Your task to perform on an android device: Go to Maps Image 0: 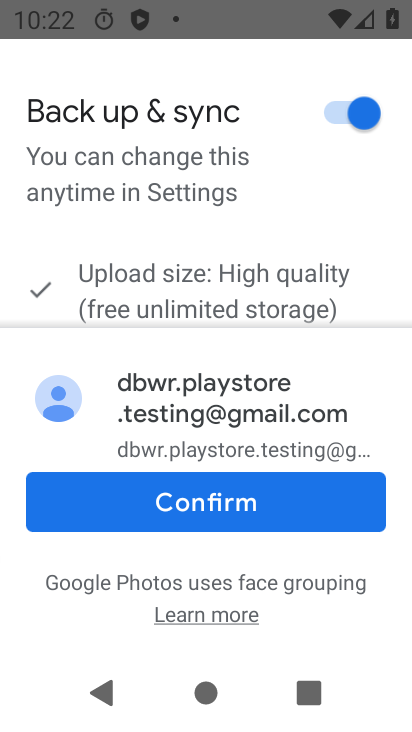
Step 0: press home button
Your task to perform on an android device: Go to Maps Image 1: 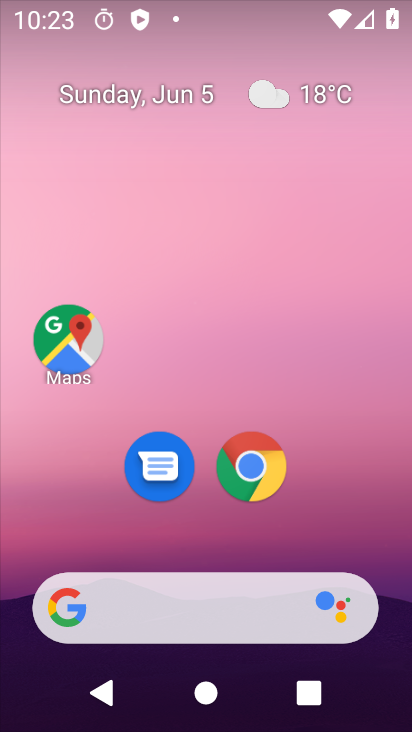
Step 1: click (70, 343)
Your task to perform on an android device: Go to Maps Image 2: 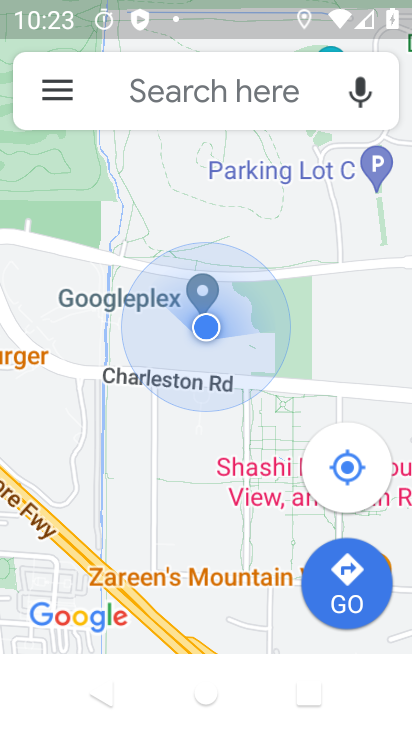
Step 2: task complete